Your task to perform on an android device: When is my next meeting? Image 0: 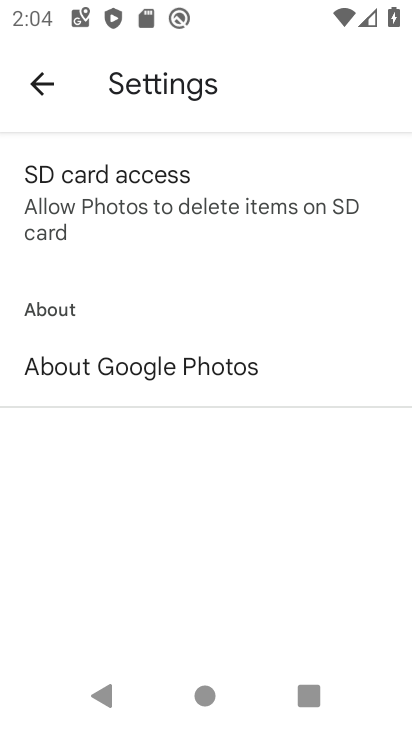
Step 0: press home button
Your task to perform on an android device: When is my next meeting? Image 1: 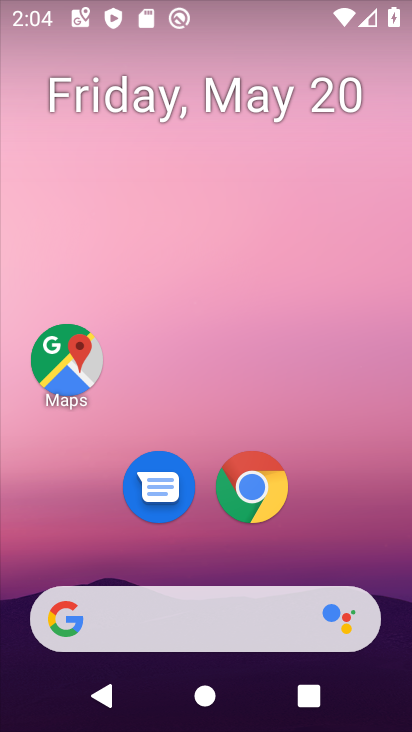
Step 1: drag from (364, 446) to (381, 113)
Your task to perform on an android device: When is my next meeting? Image 2: 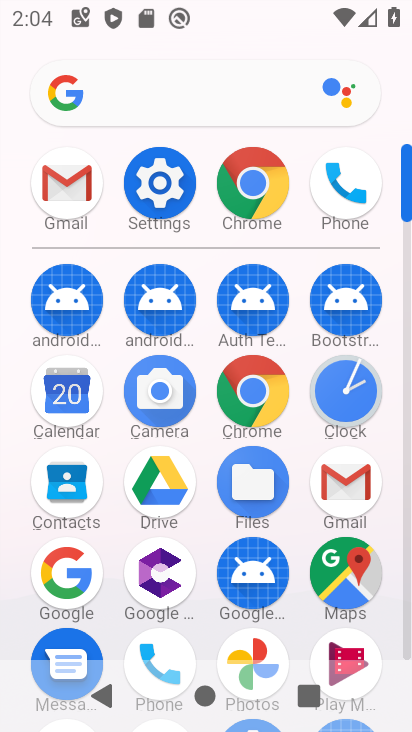
Step 2: click (64, 413)
Your task to perform on an android device: When is my next meeting? Image 3: 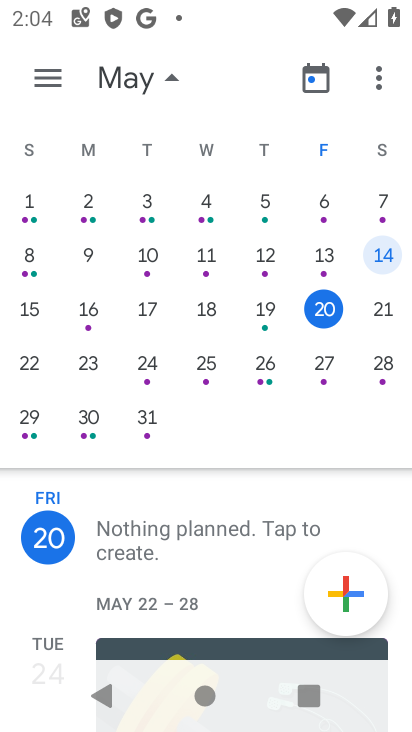
Step 3: click (133, 369)
Your task to perform on an android device: When is my next meeting? Image 4: 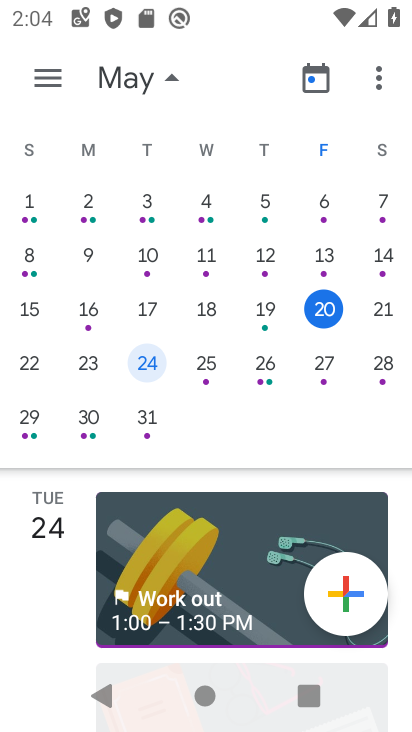
Step 4: task complete